Your task to perform on an android device: See recent photos Image 0: 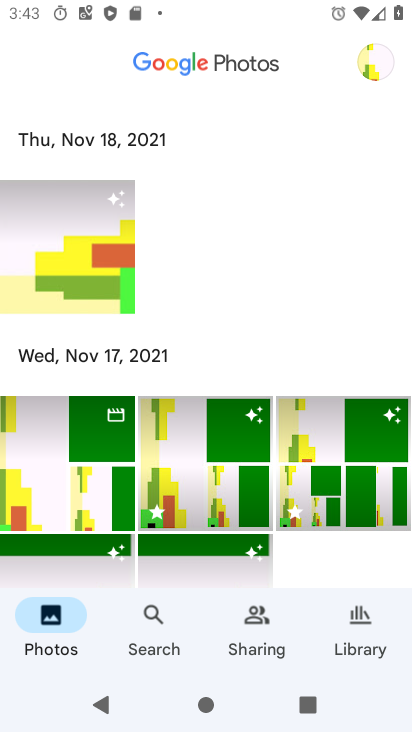
Step 0: press home button
Your task to perform on an android device: See recent photos Image 1: 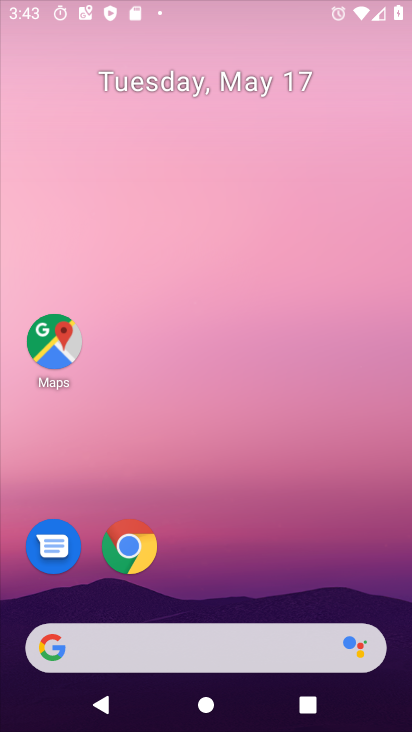
Step 1: drag from (235, 624) to (241, 198)
Your task to perform on an android device: See recent photos Image 2: 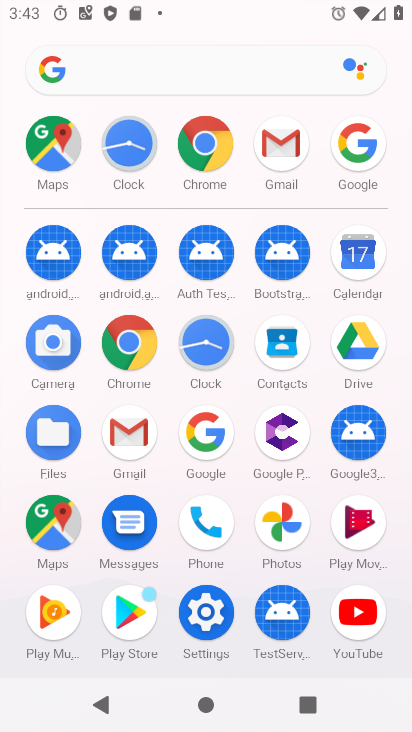
Step 2: click (293, 518)
Your task to perform on an android device: See recent photos Image 3: 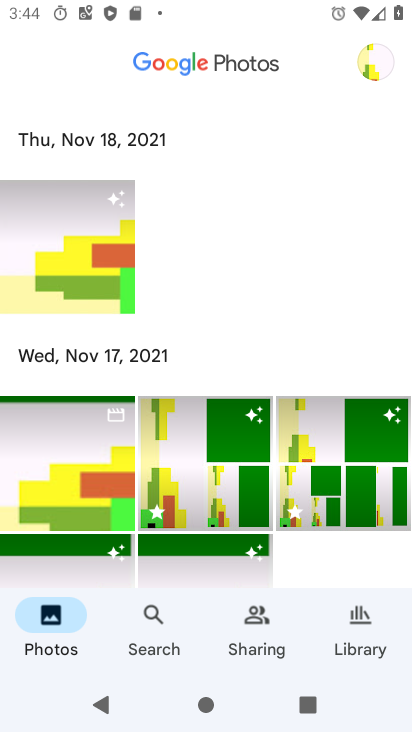
Step 3: task complete